Your task to perform on an android device: Play the last video I watched on Youtube Image 0: 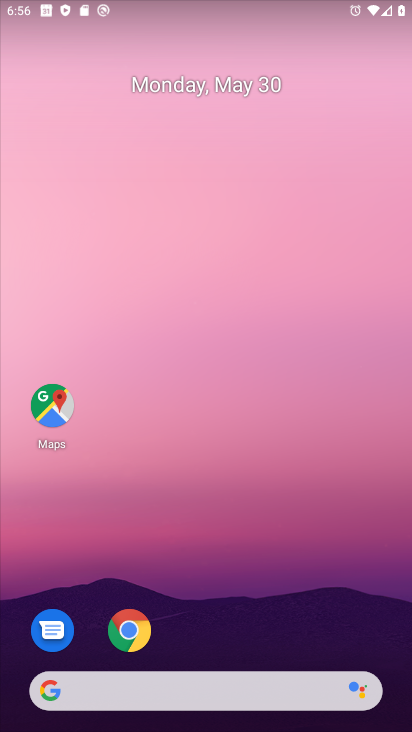
Step 0: drag from (324, 607) to (231, 0)
Your task to perform on an android device: Play the last video I watched on Youtube Image 1: 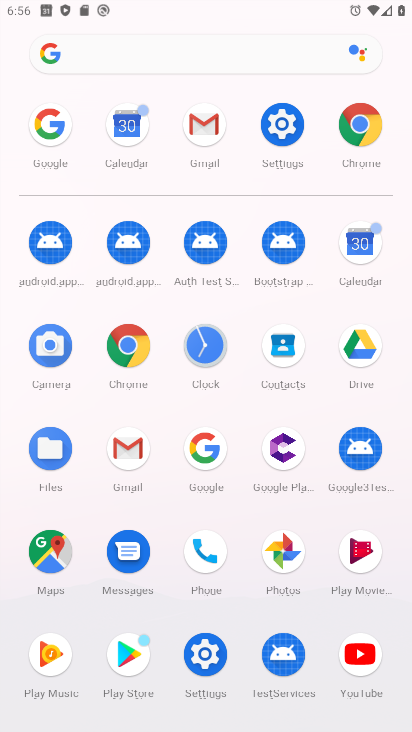
Step 1: click (372, 699)
Your task to perform on an android device: Play the last video I watched on Youtube Image 2: 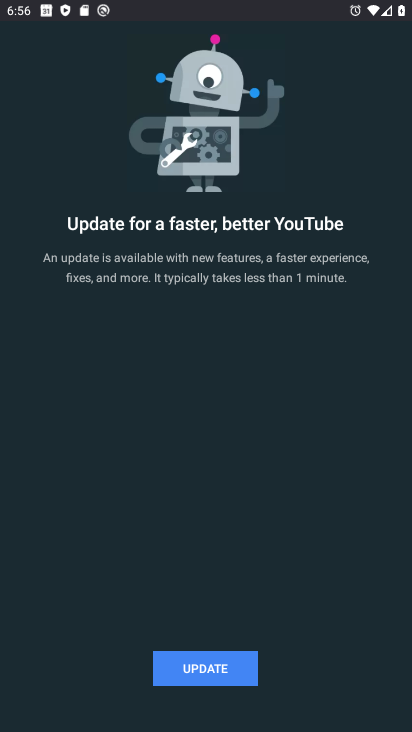
Step 2: click (161, 671)
Your task to perform on an android device: Play the last video I watched on Youtube Image 3: 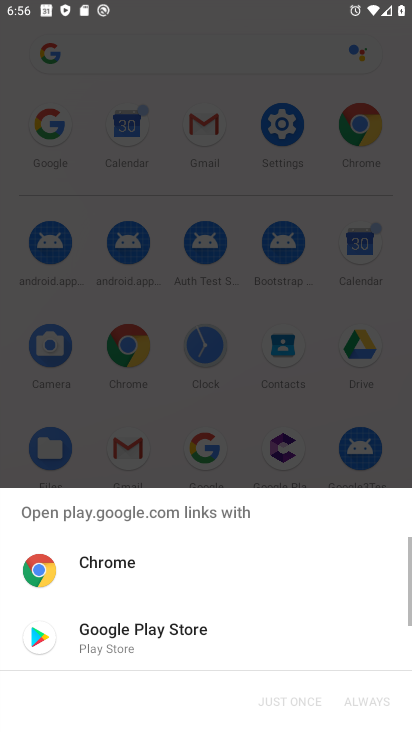
Step 3: click (182, 651)
Your task to perform on an android device: Play the last video I watched on Youtube Image 4: 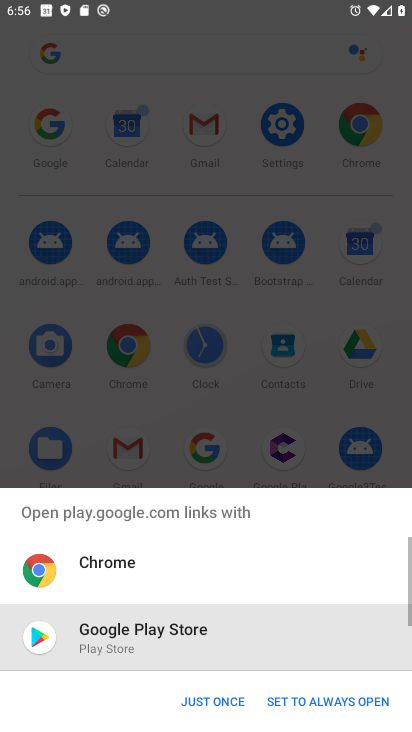
Step 4: click (221, 702)
Your task to perform on an android device: Play the last video I watched on Youtube Image 5: 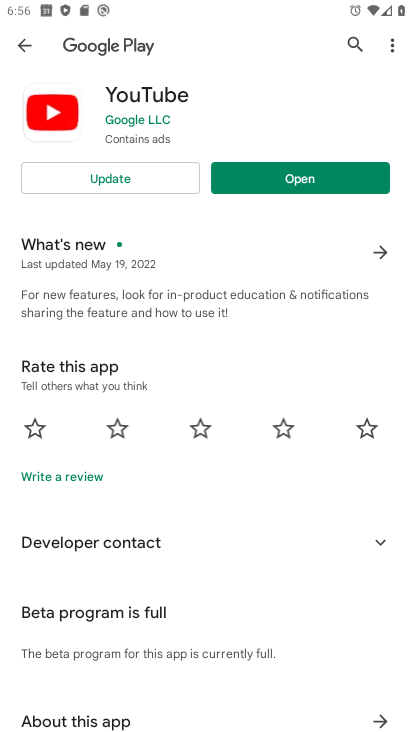
Step 5: click (114, 175)
Your task to perform on an android device: Play the last video I watched on Youtube Image 6: 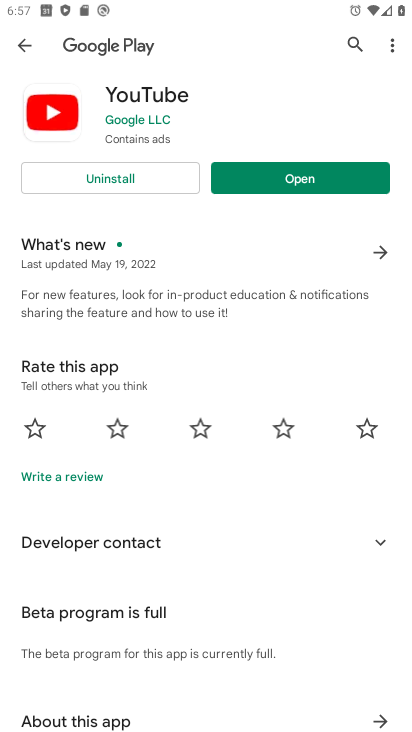
Step 6: click (313, 180)
Your task to perform on an android device: Play the last video I watched on Youtube Image 7: 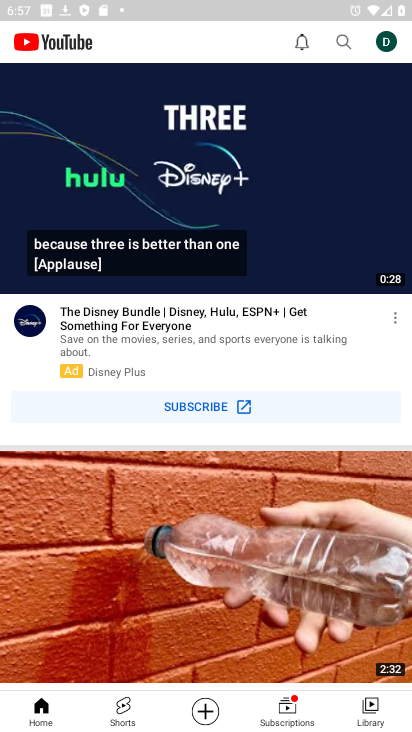
Step 7: click (371, 700)
Your task to perform on an android device: Play the last video I watched on Youtube Image 8: 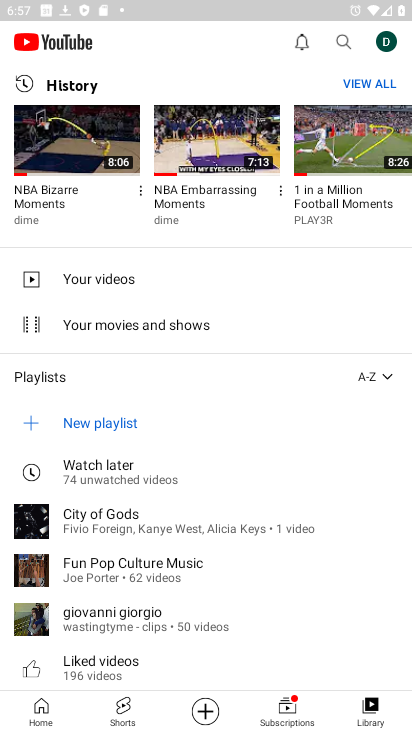
Step 8: click (67, 166)
Your task to perform on an android device: Play the last video I watched on Youtube Image 9: 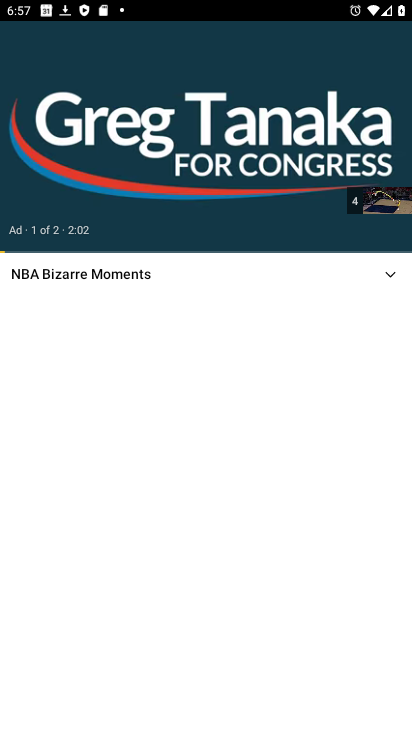
Step 9: click (202, 142)
Your task to perform on an android device: Play the last video I watched on Youtube Image 10: 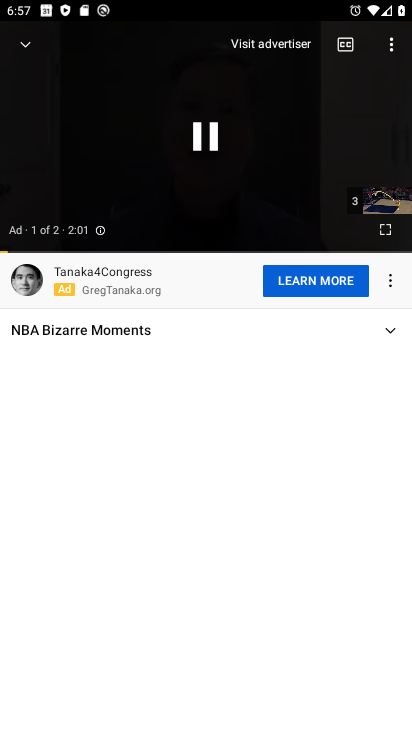
Step 10: click (202, 142)
Your task to perform on an android device: Play the last video I watched on Youtube Image 11: 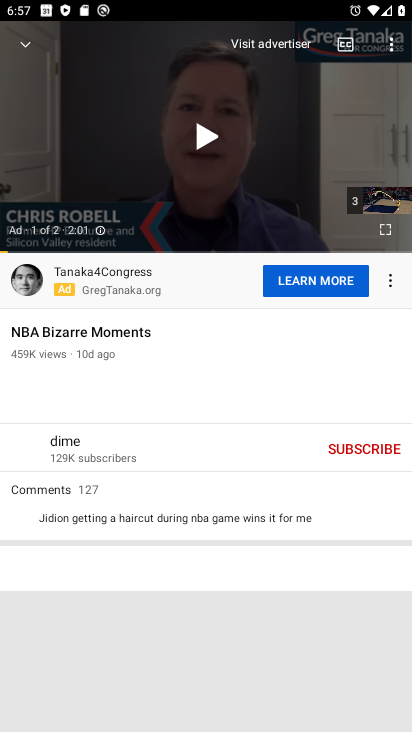
Step 11: task complete